Your task to perform on an android device: find snoozed emails in the gmail app Image 0: 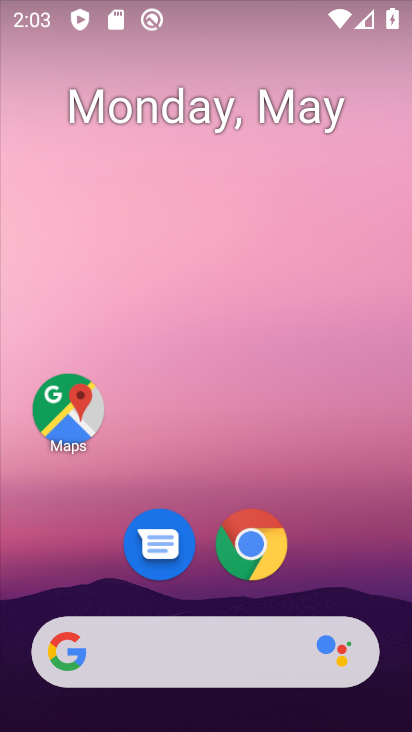
Step 0: drag from (194, 580) to (194, 170)
Your task to perform on an android device: find snoozed emails in the gmail app Image 1: 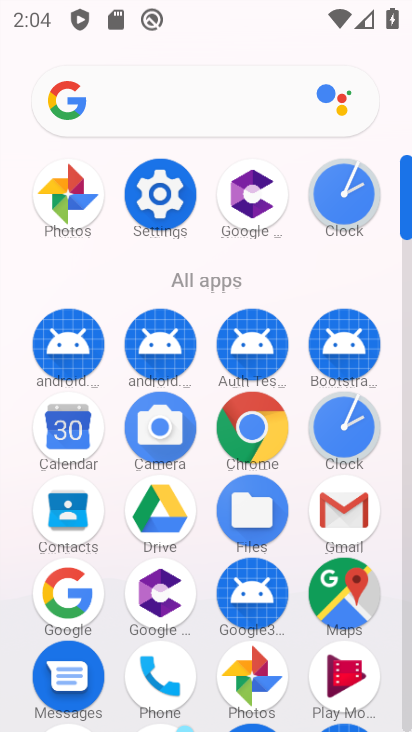
Step 1: click (336, 510)
Your task to perform on an android device: find snoozed emails in the gmail app Image 2: 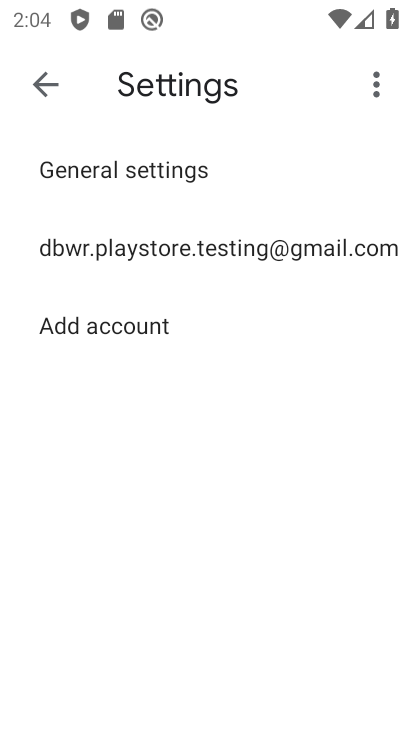
Step 2: click (51, 97)
Your task to perform on an android device: find snoozed emails in the gmail app Image 3: 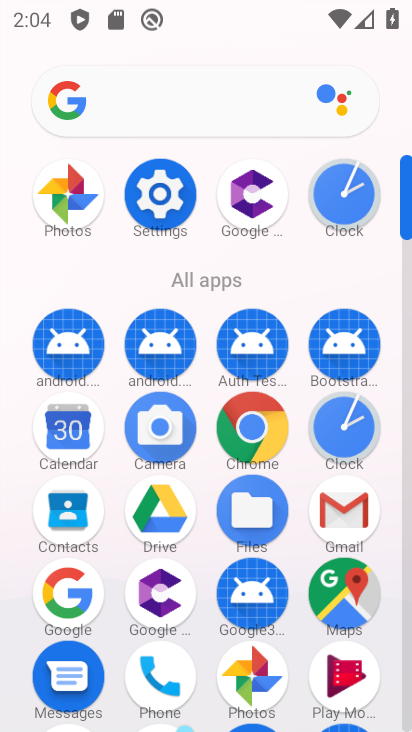
Step 3: click (354, 524)
Your task to perform on an android device: find snoozed emails in the gmail app Image 4: 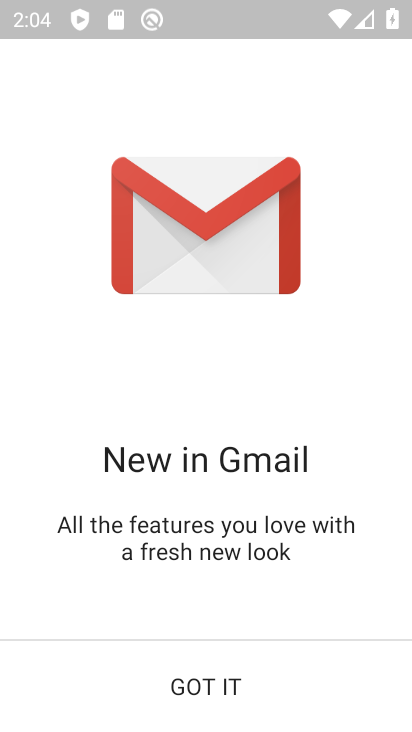
Step 4: click (229, 685)
Your task to perform on an android device: find snoozed emails in the gmail app Image 5: 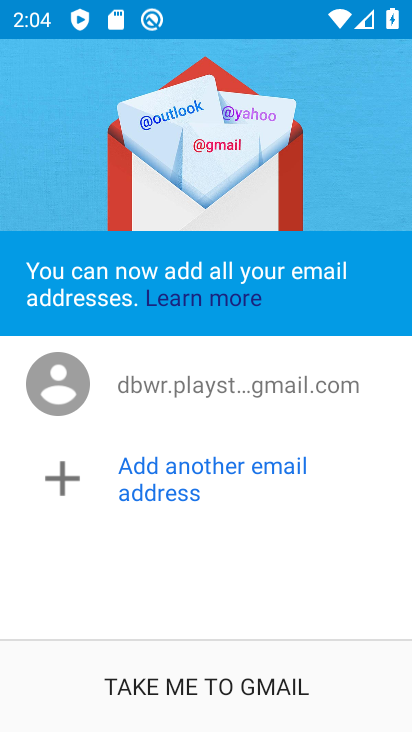
Step 5: click (210, 672)
Your task to perform on an android device: find snoozed emails in the gmail app Image 6: 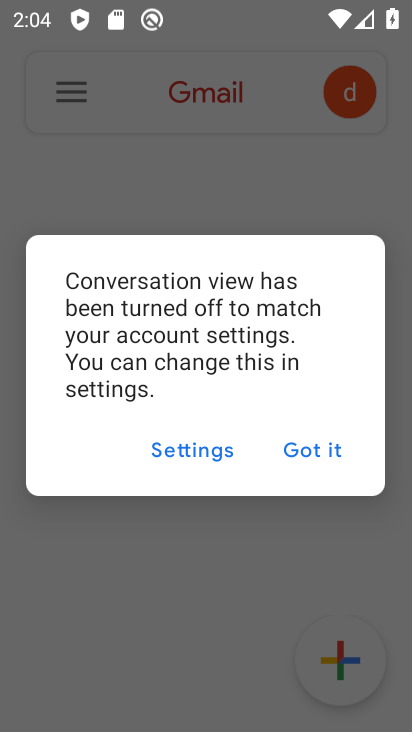
Step 6: click (302, 453)
Your task to perform on an android device: find snoozed emails in the gmail app Image 7: 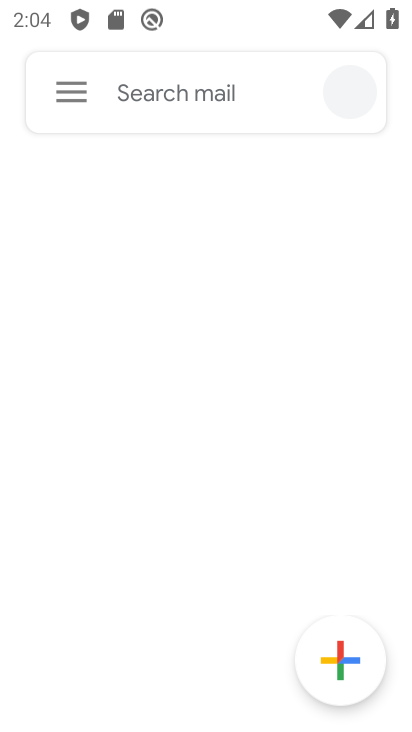
Step 7: click (68, 99)
Your task to perform on an android device: find snoozed emails in the gmail app Image 8: 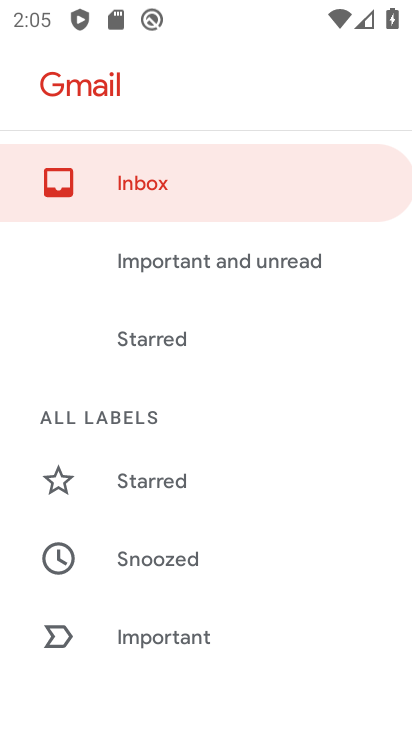
Step 8: click (195, 562)
Your task to perform on an android device: find snoozed emails in the gmail app Image 9: 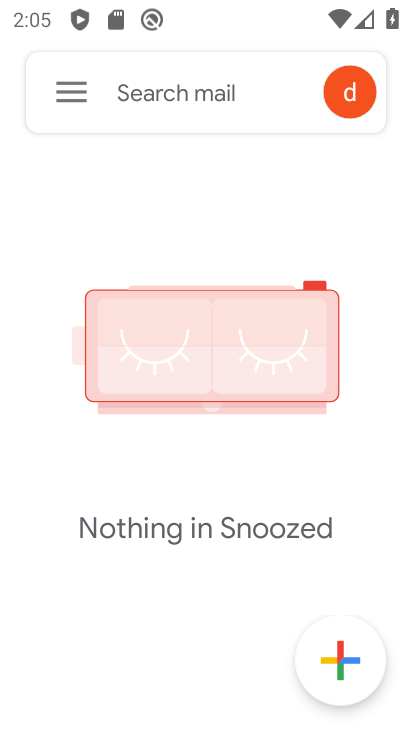
Step 9: task complete